Your task to perform on an android device: add a contact Image 0: 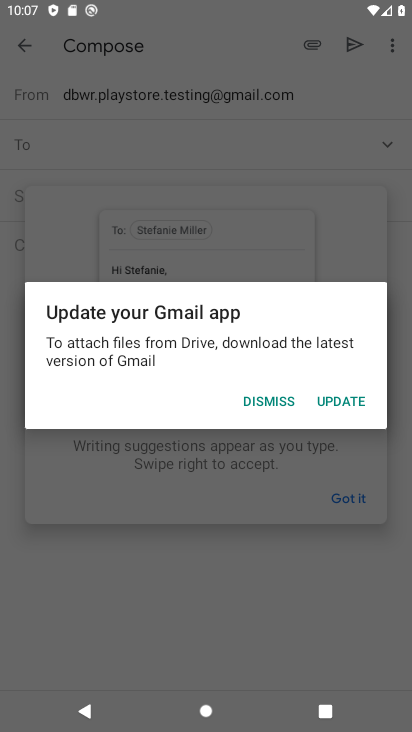
Step 0: press home button
Your task to perform on an android device: add a contact Image 1: 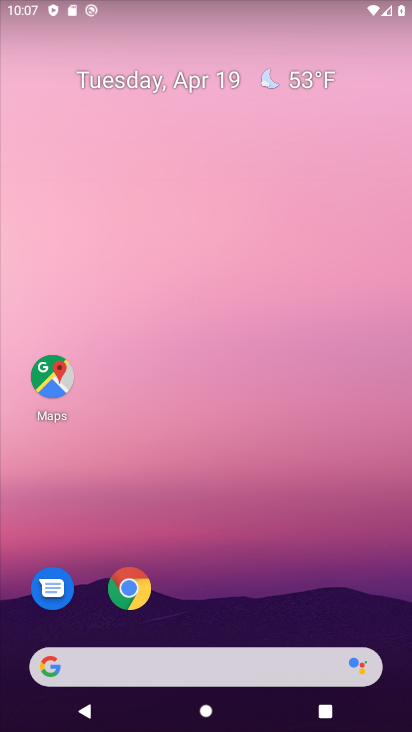
Step 1: drag from (194, 653) to (143, 65)
Your task to perform on an android device: add a contact Image 2: 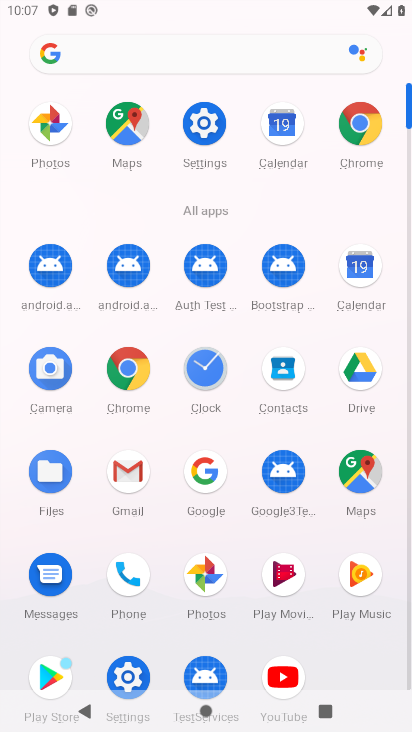
Step 2: click (268, 368)
Your task to perform on an android device: add a contact Image 3: 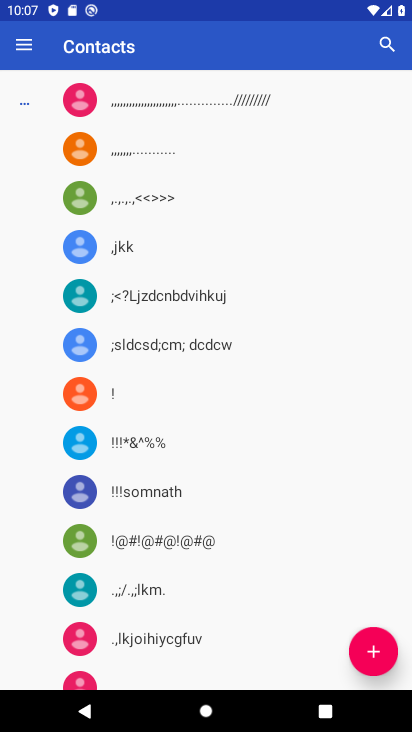
Step 3: click (368, 656)
Your task to perform on an android device: add a contact Image 4: 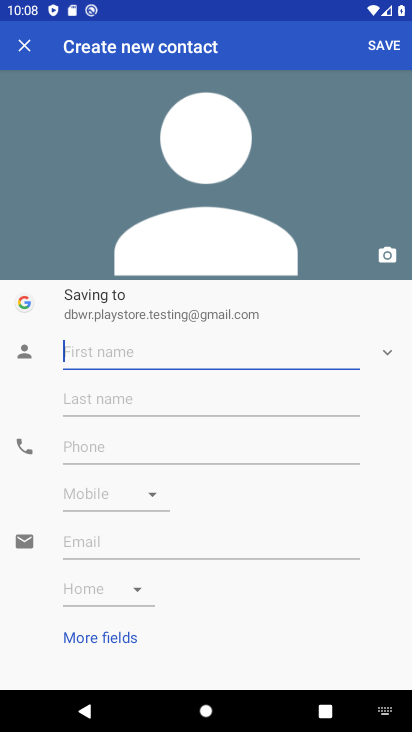
Step 4: type "nvzxmc"
Your task to perform on an android device: add a contact Image 5: 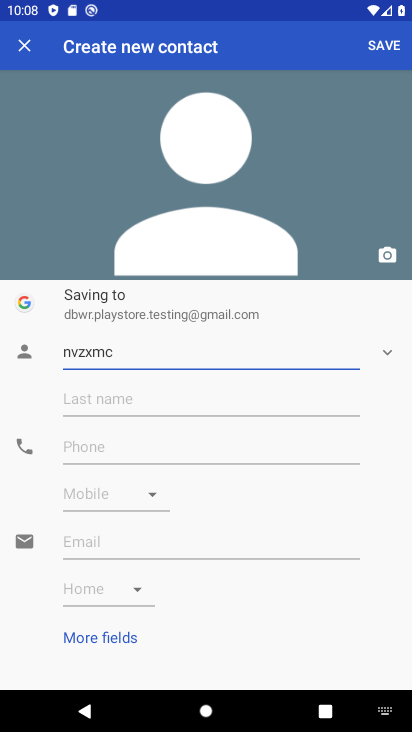
Step 5: click (197, 442)
Your task to perform on an android device: add a contact Image 6: 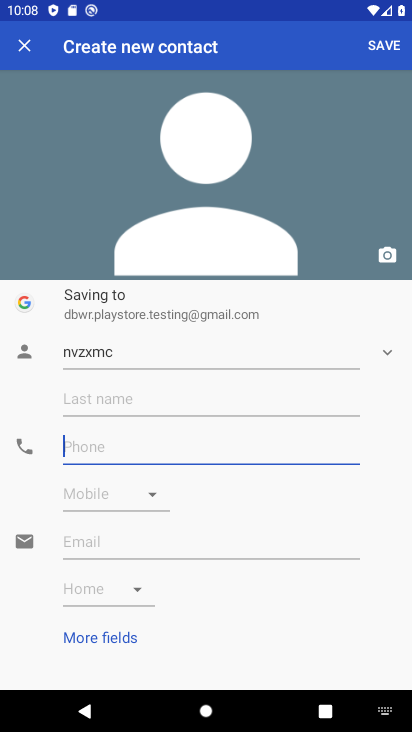
Step 6: type "48198491"
Your task to perform on an android device: add a contact Image 7: 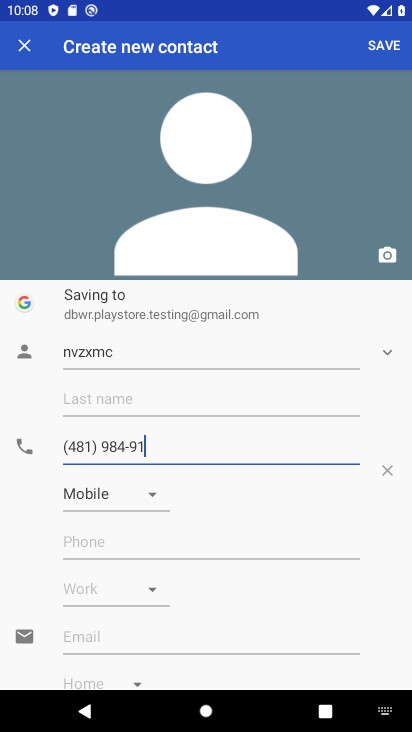
Step 7: click (382, 39)
Your task to perform on an android device: add a contact Image 8: 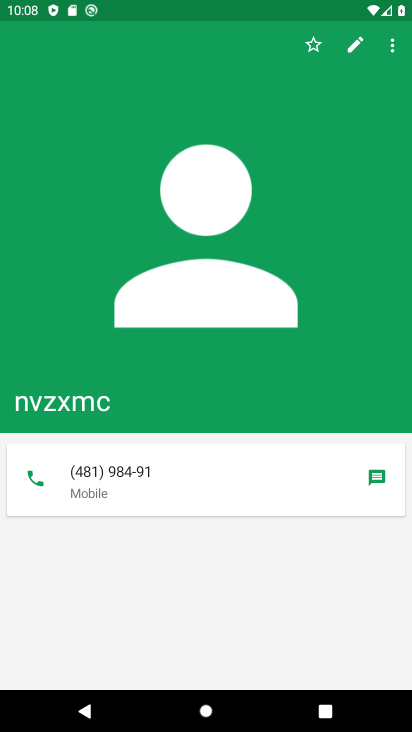
Step 8: task complete